Your task to perform on an android device: turn on location history Image 0: 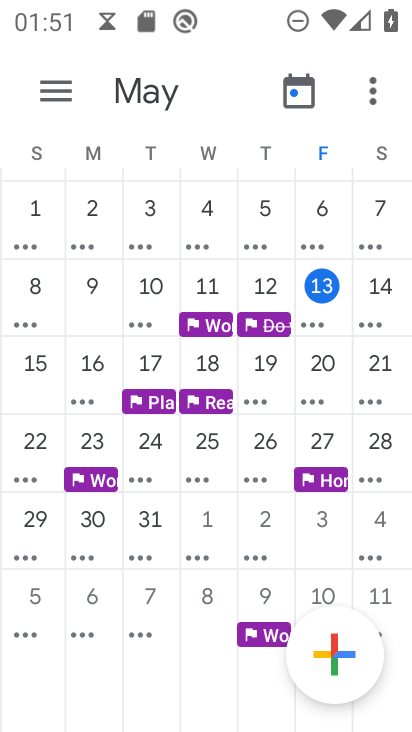
Step 0: press home button
Your task to perform on an android device: turn on location history Image 1: 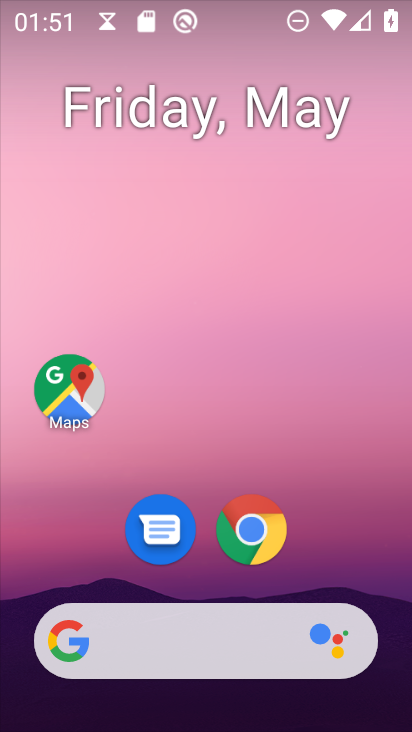
Step 1: drag from (242, 604) to (232, 414)
Your task to perform on an android device: turn on location history Image 2: 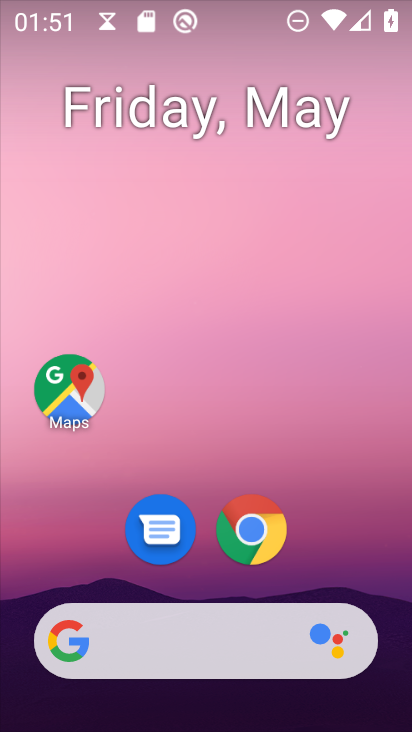
Step 2: drag from (179, 566) to (230, 250)
Your task to perform on an android device: turn on location history Image 3: 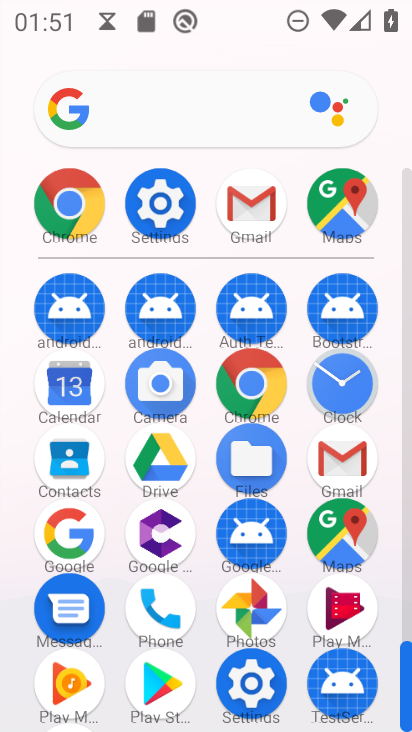
Step 3: click (164, 178)
Your task to perform on an android device: turn on location history Image 4: 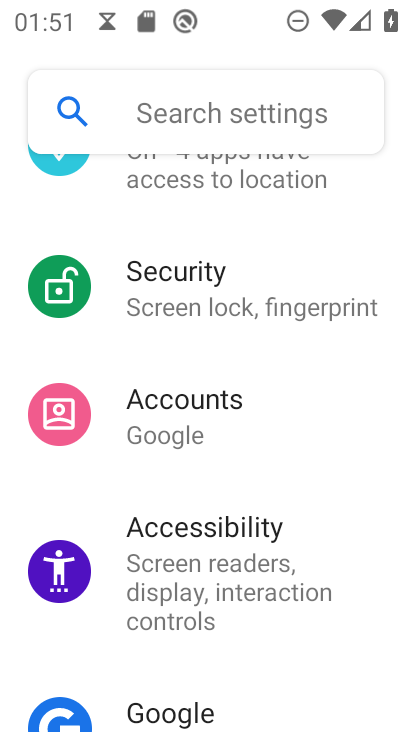
Step 4: drag from (239, 641) to (270, 721)
Your task to perform on an android device: turn on location history Image 5: 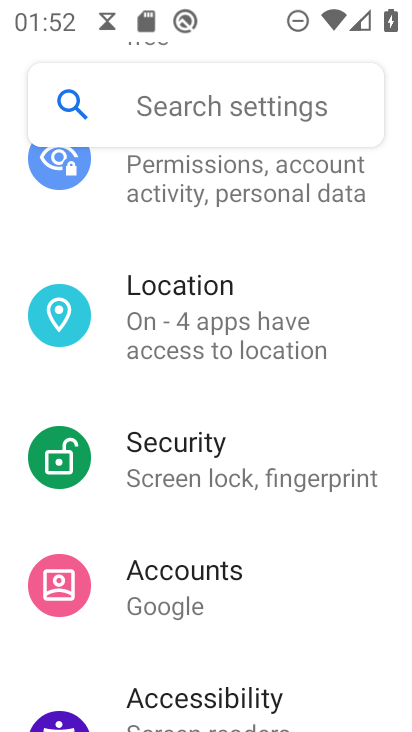
Step 5: click (252, 321)
Your task to perform on an android device: turn on location history Image 6: 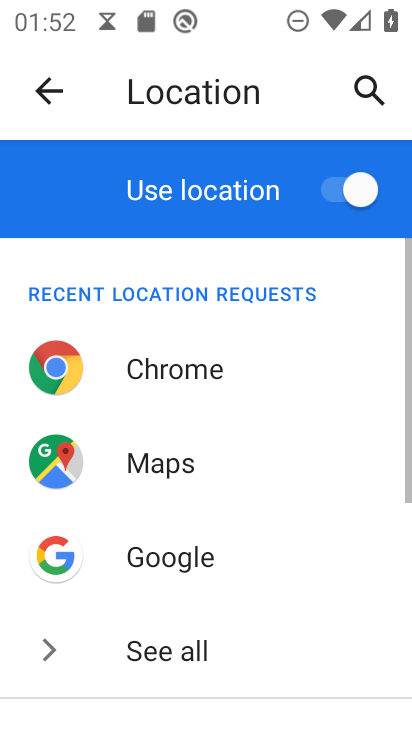
Step 6: drag from (244, 653) to (345, 66)
Your task to perform on an android device: turn on location history Image 7: 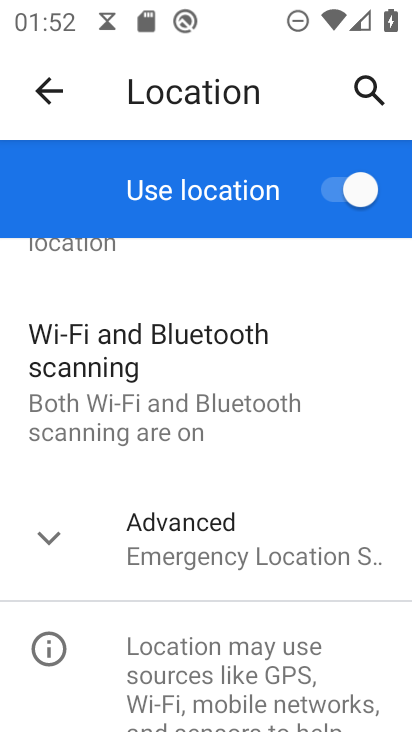
Step 7: click (266, 548)
Your task to perform on an android device: turn on location history Image 8: 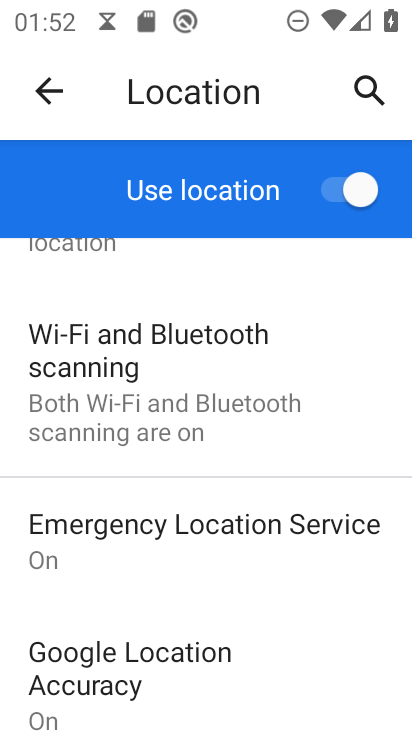
Step 8: drag from (225, 637) to (272, 357)
Your task to perform on an android device: turn on location history Image 9: 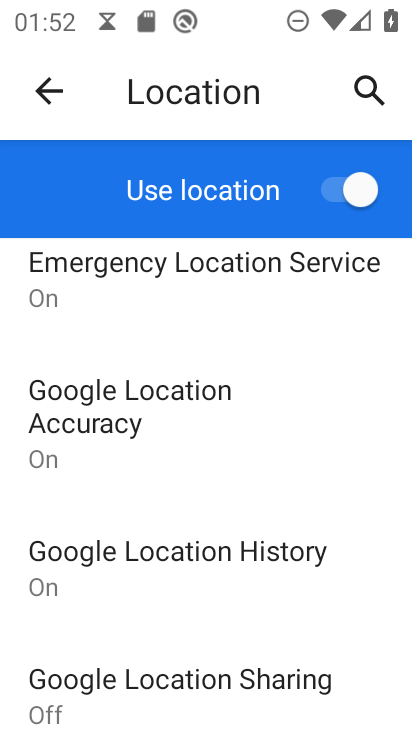
Step 9: click (180, 542)
Your task to perform on an android device: turn on location history Image 10: 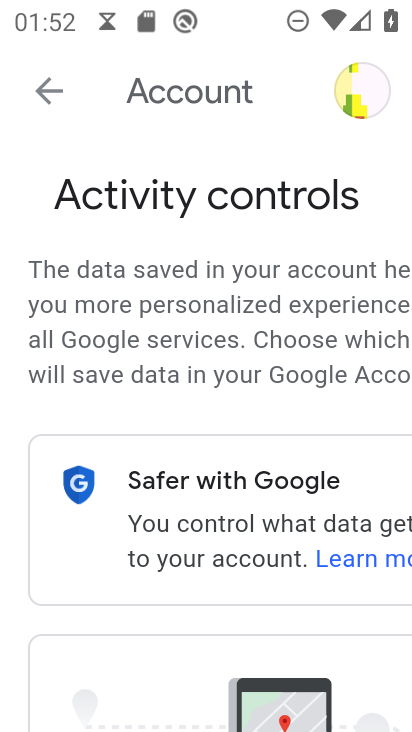
Step 10: task complete